Your task to perform on an android device: Open CNN.com Image 0: 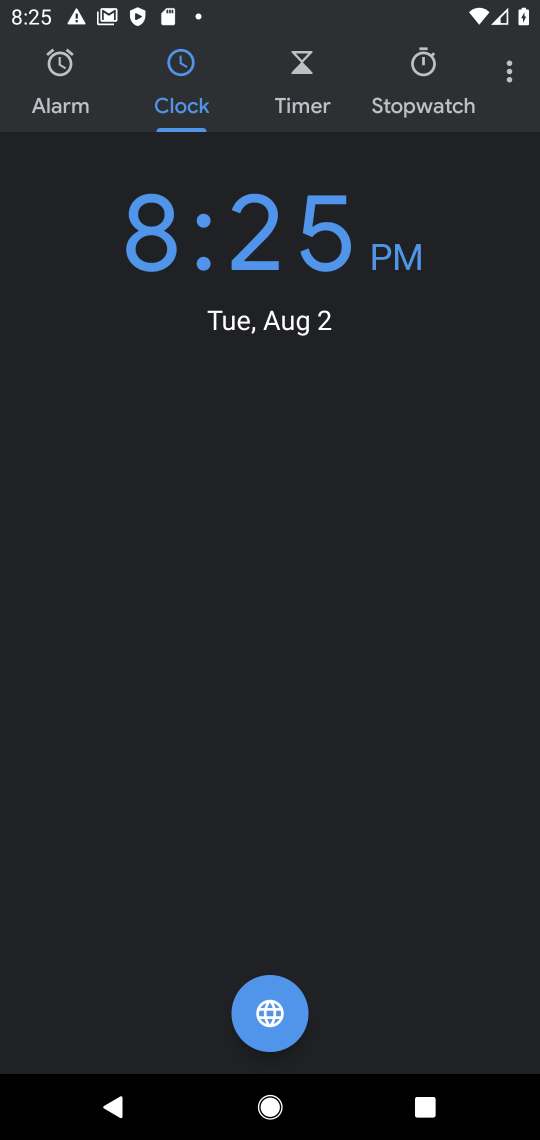
Step 0: press home button
Your task to perform on an android device: Open CNN.com Image 1: 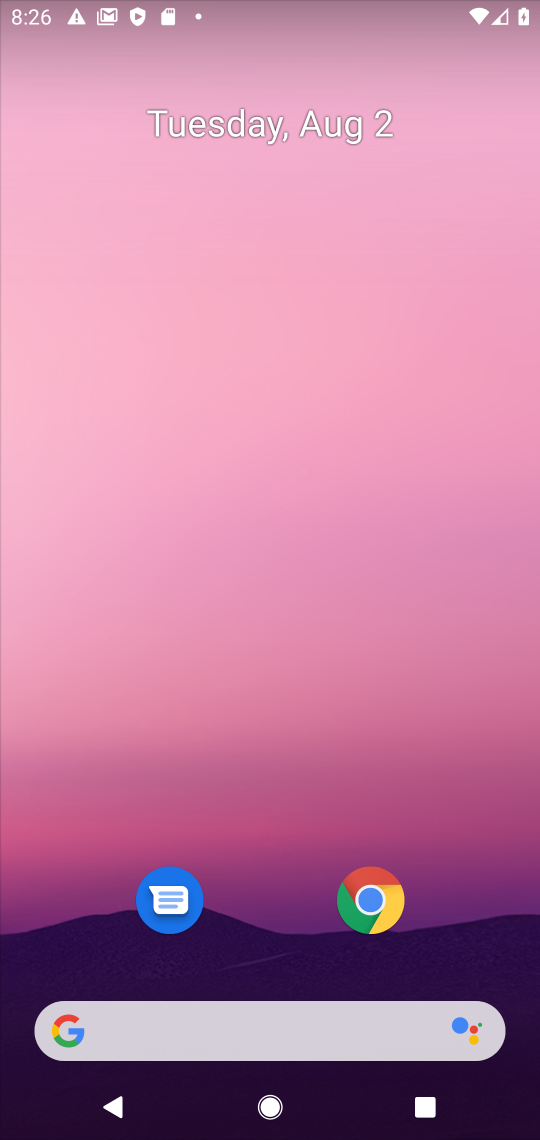
Step 1: click (350, 1045)
Your task to perform on an android device: Open CNN.com Image 2: 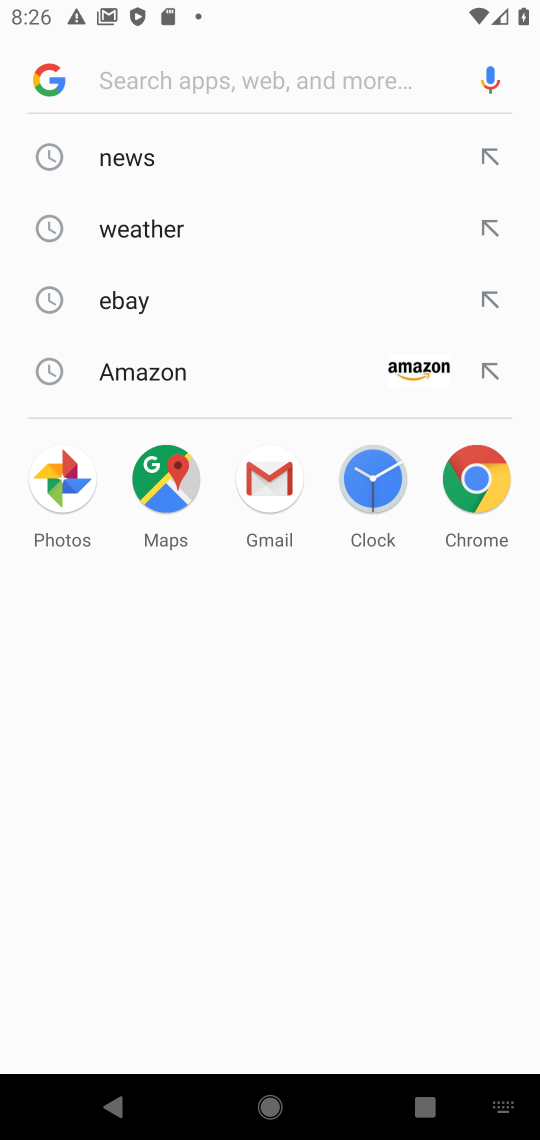
Step 2: type "cnn.com"
Your task to perform on an android device: Open CNN.com Image 3: 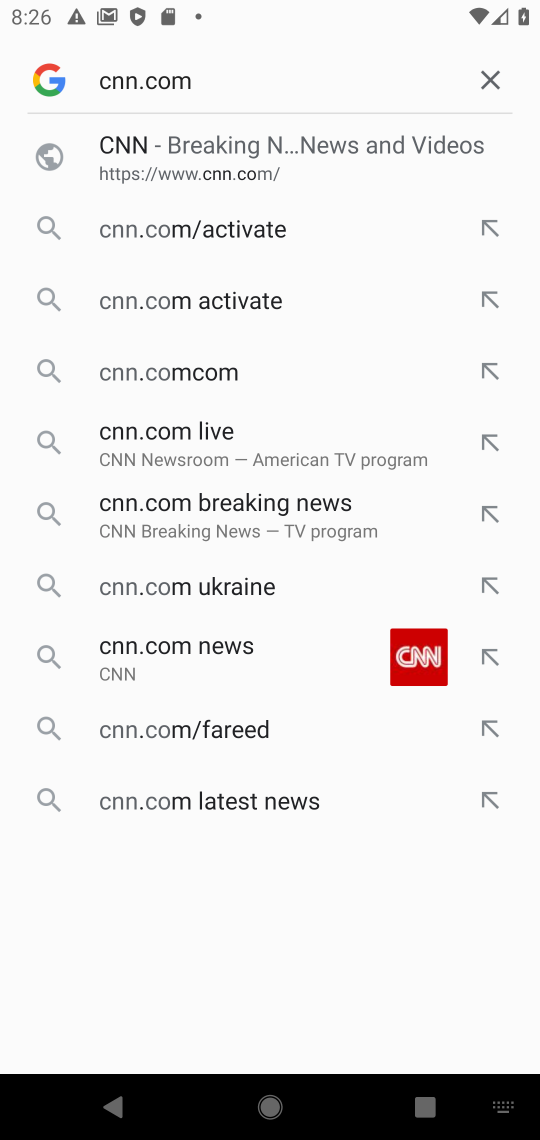
Step 3: click (275, 150)
Your task to perform on an android device: Open CNN.com Image 4: 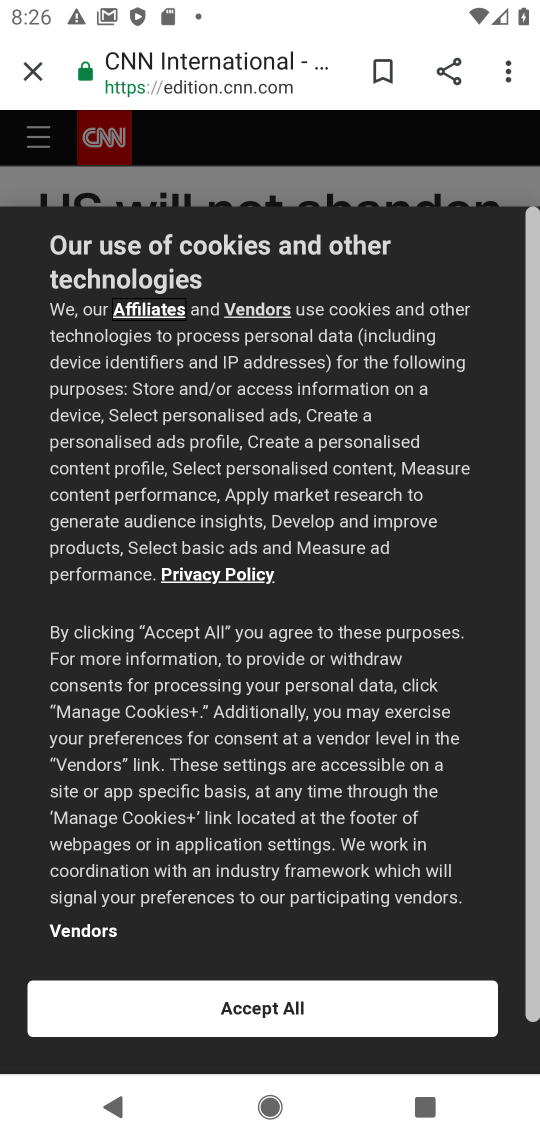
Step 4: click (444, 1018)
Your task to perform on an android device: Open CNN.com Image 5: 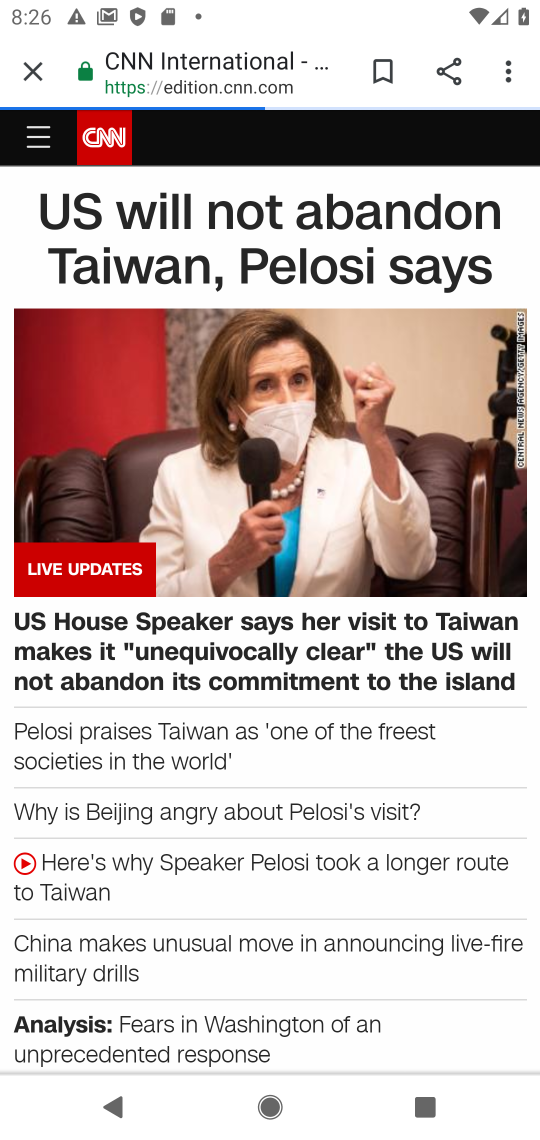
Step 5: task complete